Your task to perform on an android device: turn on showing notifications on the lock screen Image 0: 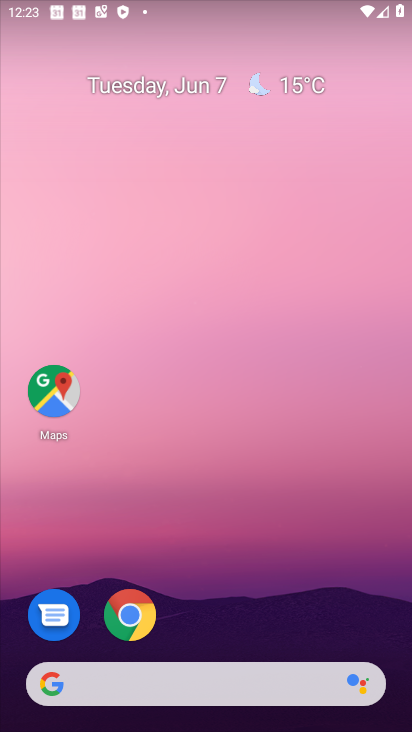
Step 0: drag from (211, 613) to (259, 24)
Your task to perform on an android device: turn on showing notifications on the lock screen Image 1: 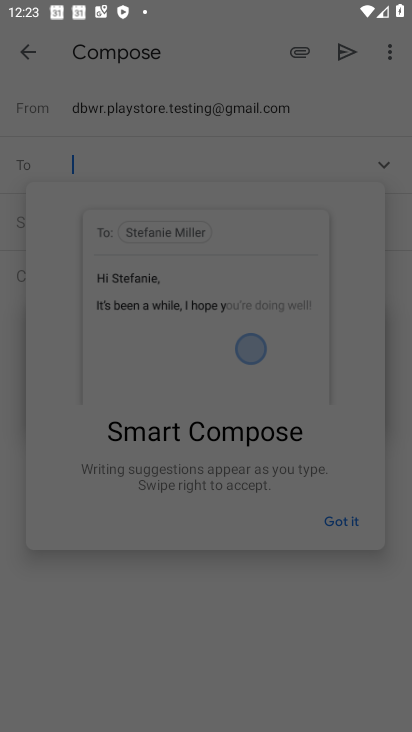
Step 1: press home button
Your task to perform on an android device: turn on showing notifications on the lock screen Image 2: 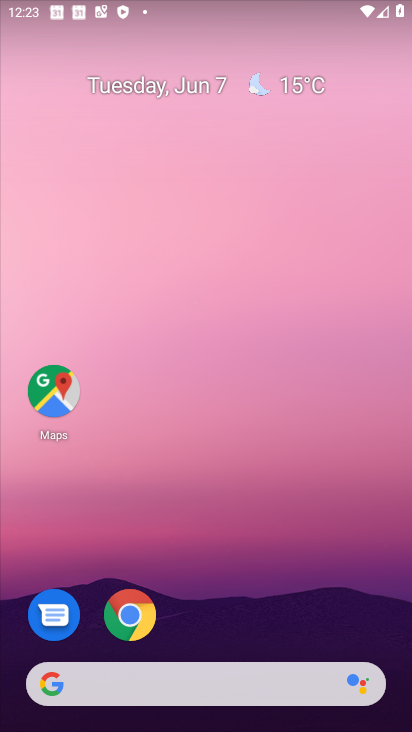
Step 2: drag from (199, 634) to (191, 115)
Your task to perform on an android device: turn on showing notifications on the lock screen Image 3: 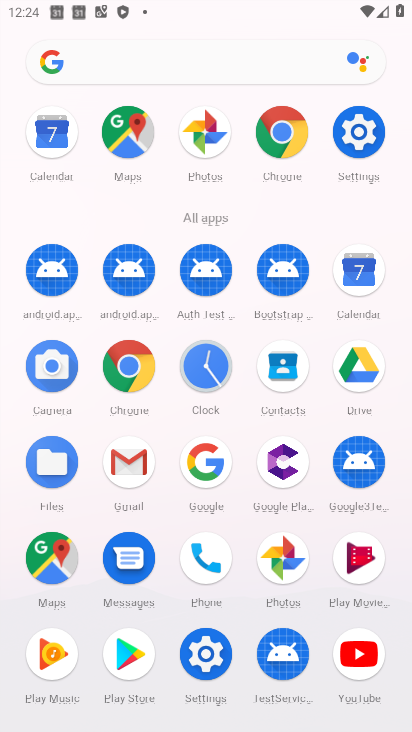
Step 3: click (356, 139)
Your task to perform on an android device: turn on showing notifications on the lock screen Image 4: 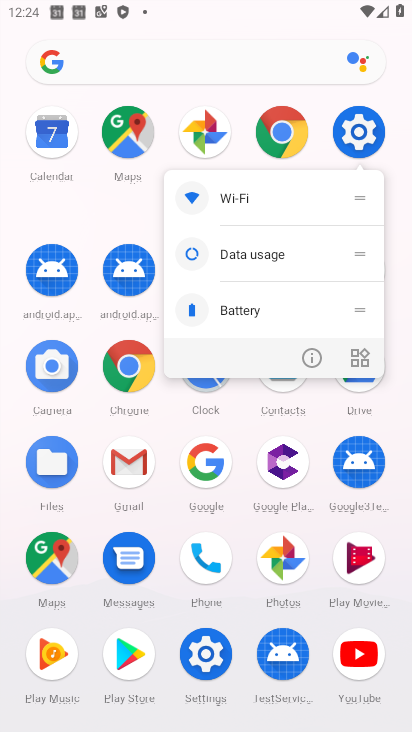
Step 4: click (355, 141)
Your task to perform on an android device: turn on showing notifications on the lock screen Image 5: 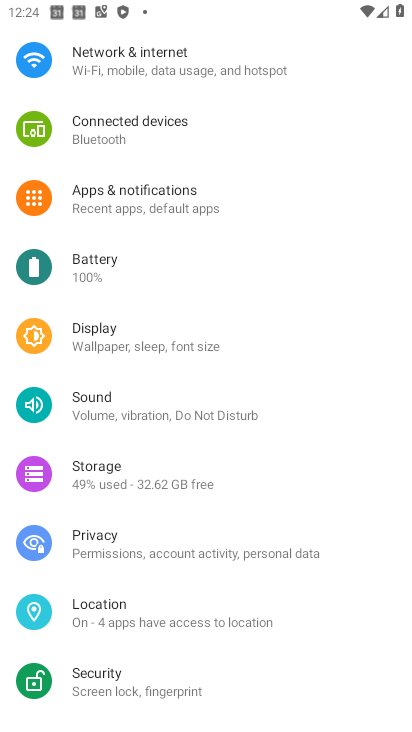
Step 5: click (117, 206)
Your task to perform on an android device: turn on showing notifications on the lock screen Image 6: 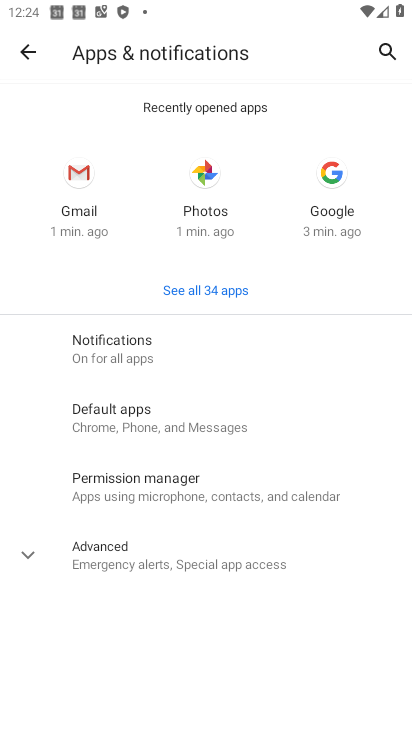
Step 6: click (106, 557)
Your task to perform on an android device: turn on showing notifications on the lock screen Image 7: 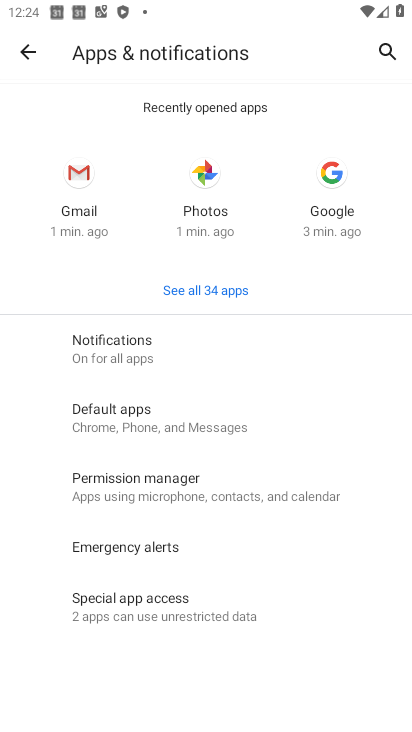
Step 7: click (108, 381)
Your task to perform on an android device: turn on showing notifications on the lock screen Image 8: 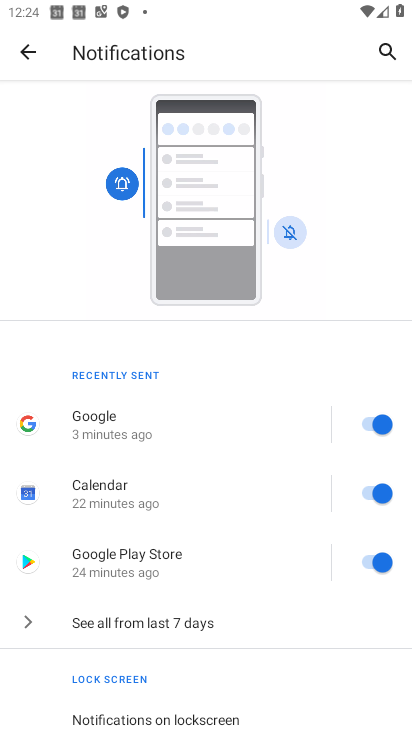
Step 8: drag from (158, 693) to (207, 348)
Your task to perform on an android device: turn on showing notifications on the lock screen Image 9: 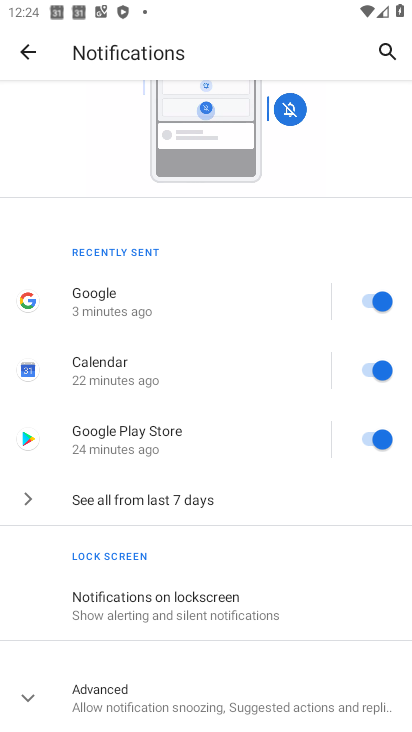
Step 9: click (121, 614)
Your task to perform on an android device: turn on showing notifications on the lock screen Image 10: 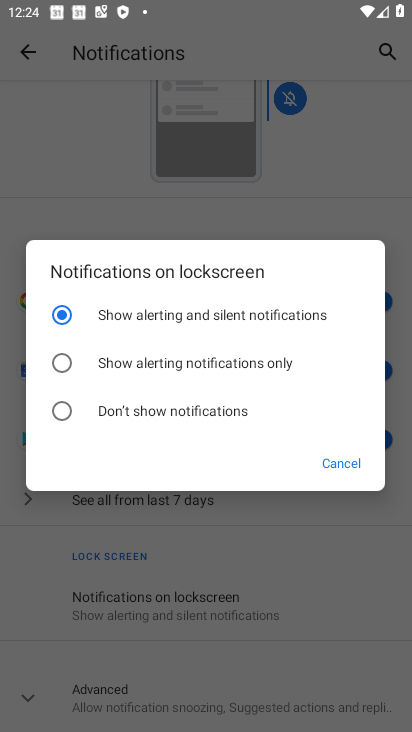
Step 10: click (59, 414)
Your task to perform on an android device: turn on showing notifications on the lock screen Image 11: 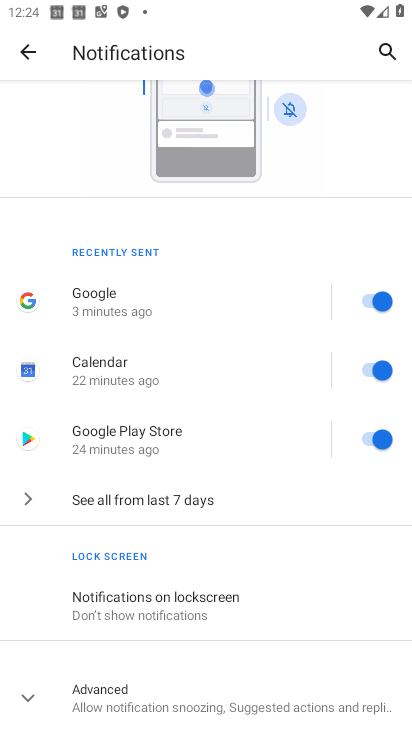
Step 11: task complete